Your task to perform on an android device: What's the weather? Image 0: 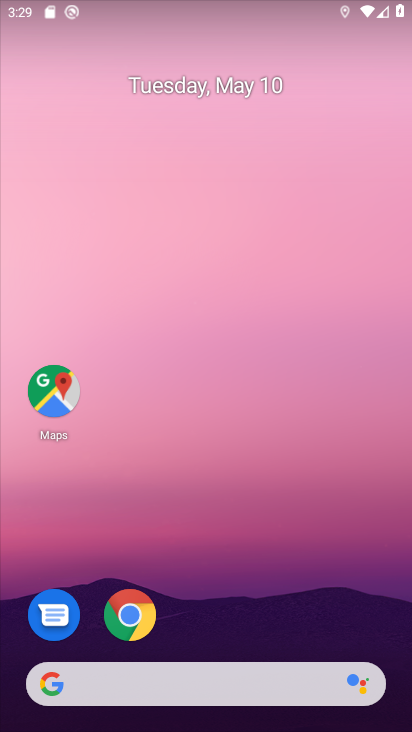
Step 0: drag from (200, 585) to (239, 8)
Your task to perform on an android device: What's the weather? Image 1: 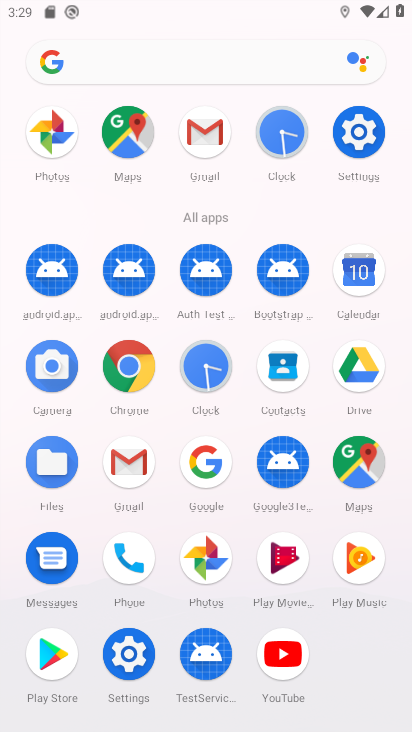
Step 1: click (136, 382)
Your task to perform on an android device: What's the weather? Image 2: 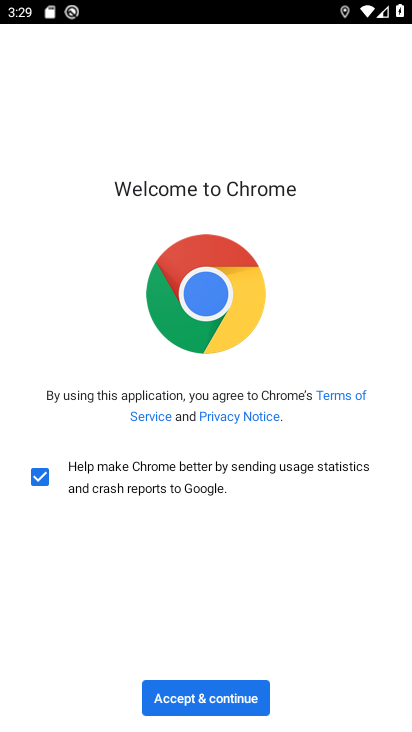
Step 2: click (161, 698)
Your task to perform on an android device: What's the weather? Image 3: 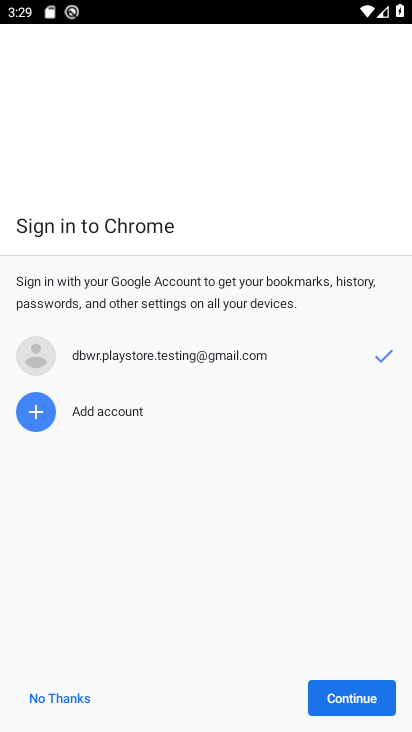
Step 3: click (349, 699)
Your task to perform on an android device: What's the weather? Image 4: 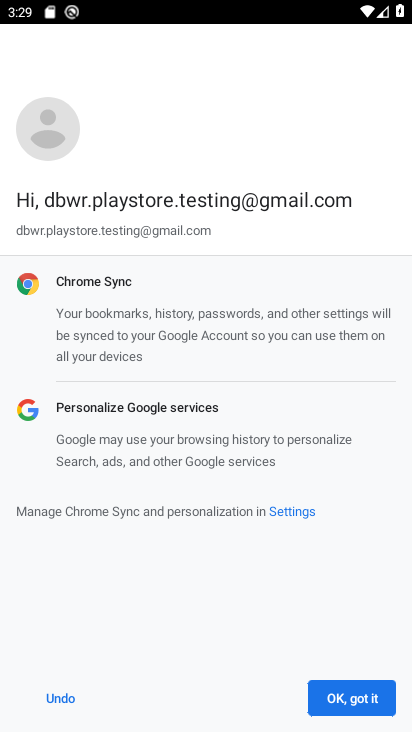
Step 4: click (351, 717)
Your task to perform on an android device: What's the weather? Image 5: 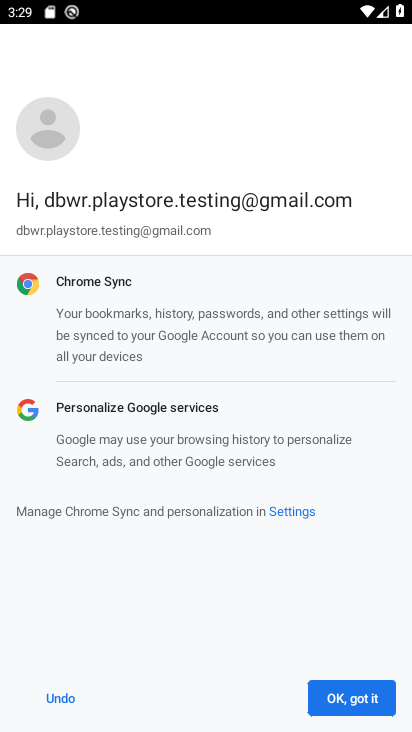
Step 5: click (348, 704)
Your task to perform on an android device: What's the weather? Image 6: 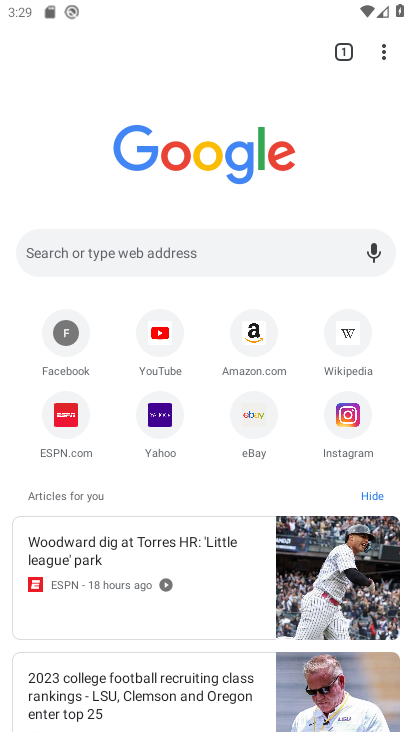
Step 6: click (280, 254)
Your task to perform on an android device: What's the weather? Image 7: 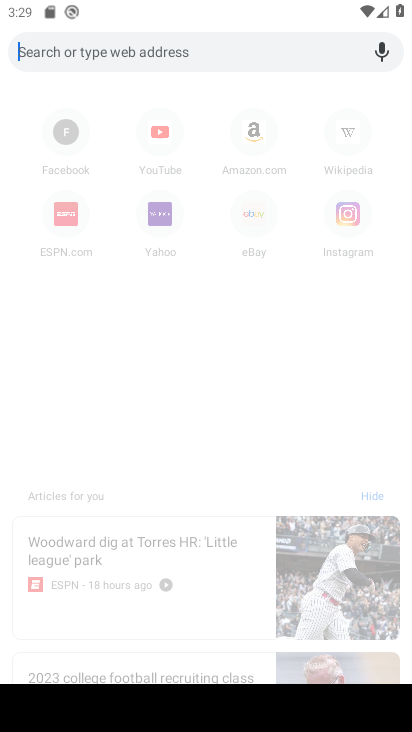
Step 7: type "what is weather?"
Your task to perform on an android device: What's the weather? Image 8: 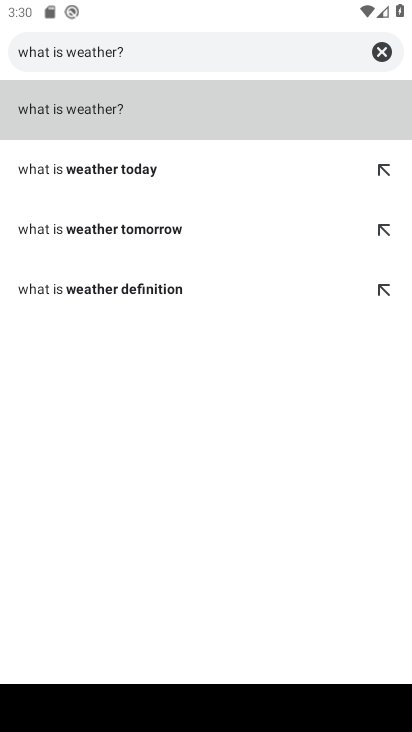
Step 8: click (145, 113)
Your task to perform on an android device: What's the weather? Image 9: 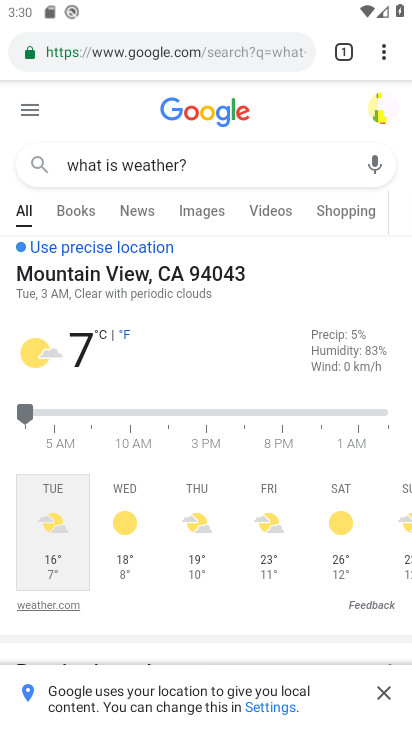
Step 9: task complete